Your task to perform on an android device: check google app version Image 0: 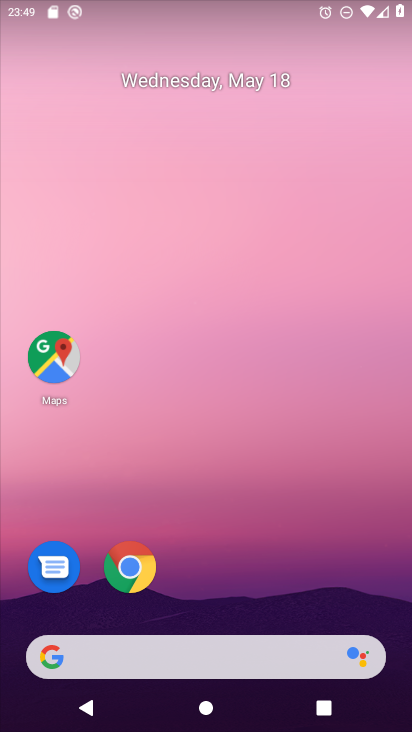
Step 0: drag from (267, 683) to (273, 199)
Your task to perform on an android device: check google app version Image 1: 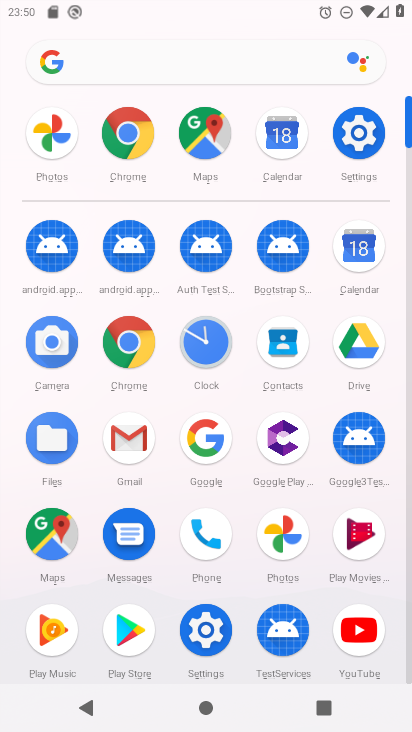
Step 1: click (334, 142)
Your task to perform on an android device: check google app version Image 2: 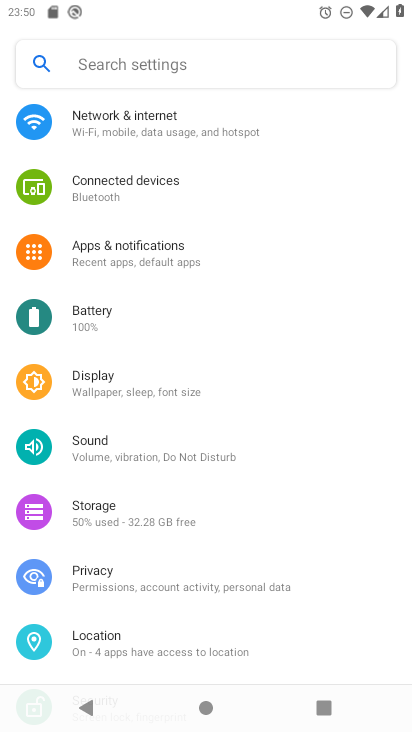
Step 2: press home button
Your task to perform on an android device: check google app version Image 3: 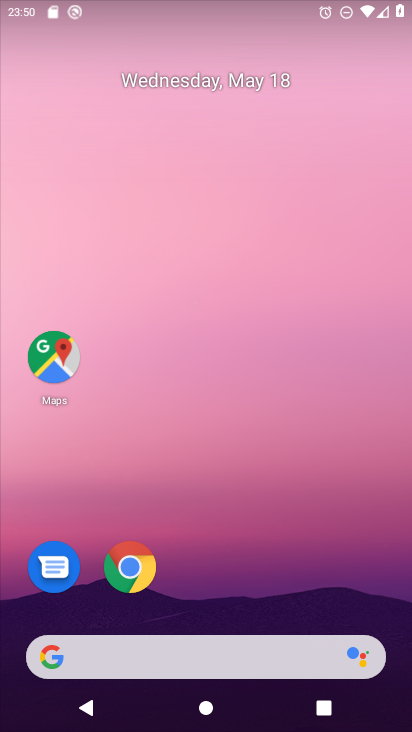
Step 3: drag from (211, 693) to (273, 98)
Your task to perform on an android device: check google app version Image 4: 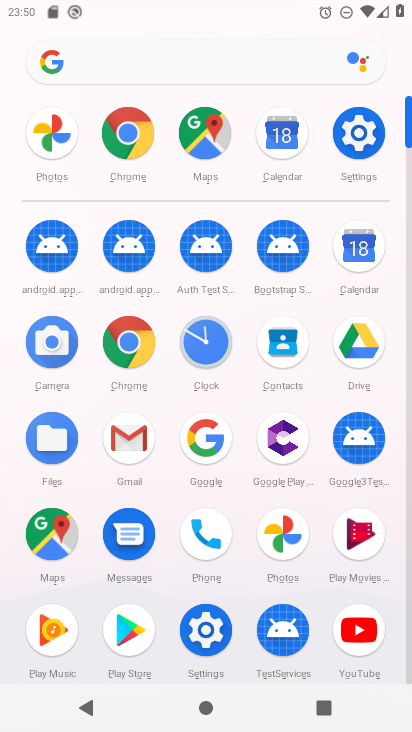
Step 4: click (144, 140)
Your task to perform on an android device: check google app version Image 5: 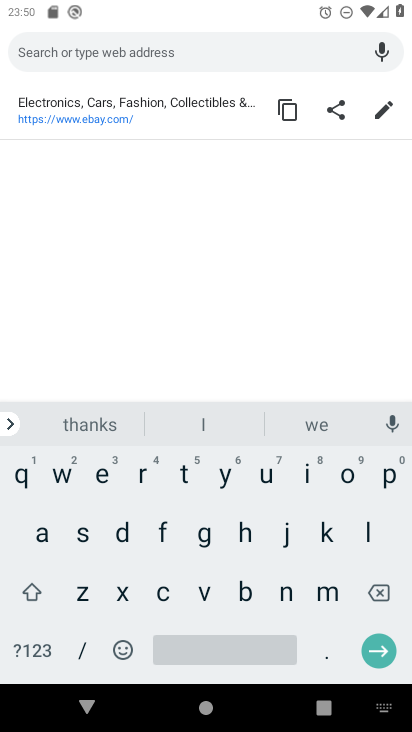
Step 5: press back button
Your task to perform on an android device: check google app version Image 6: 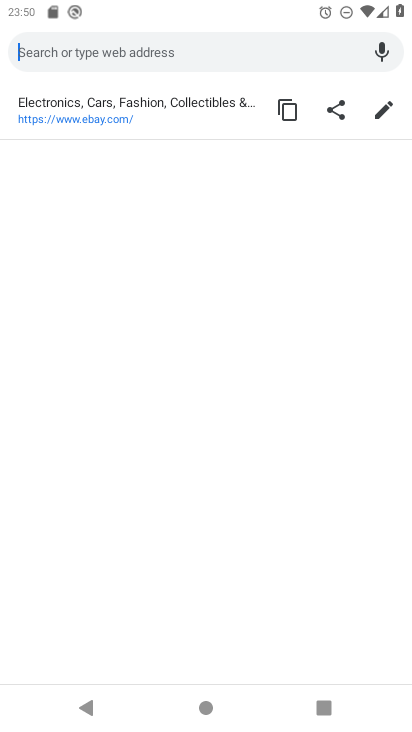
Step 6: press back button
Your task to perform on an android device: check google app version Image 7: 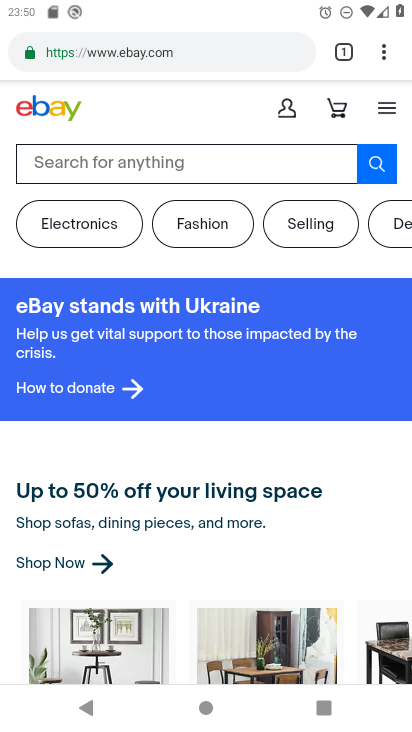
Step 7: click (373, 68)
Your task to perform on an android device: check google app version Image 8: 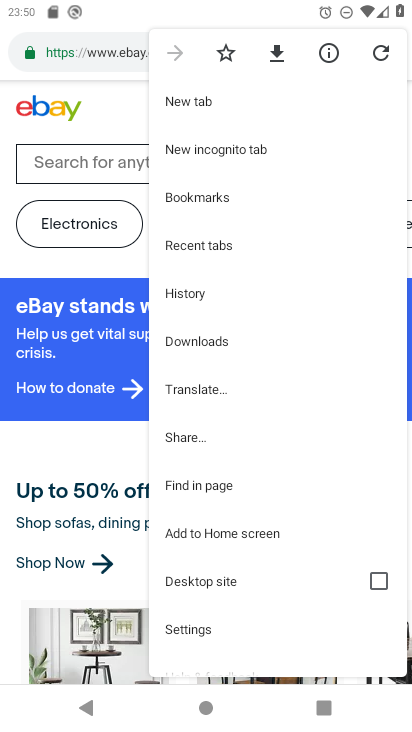
Step 8: click (212, 631)
Your task to perform on an android device: check google app version Image 9: 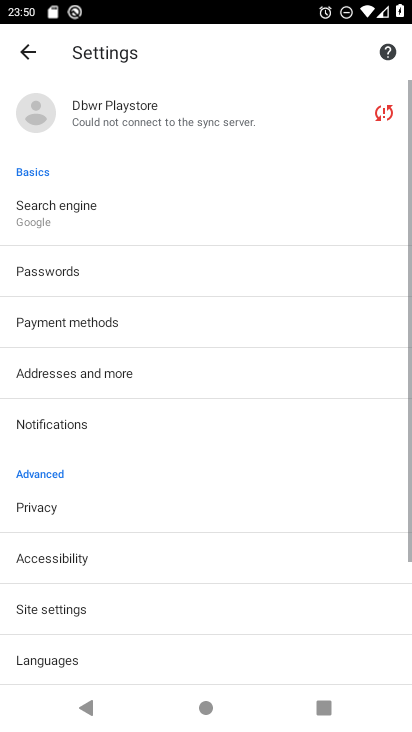
Step 9: drag from (256, 646) to (296, 257)
Your task to perform on an android device: check google app version Image 10: 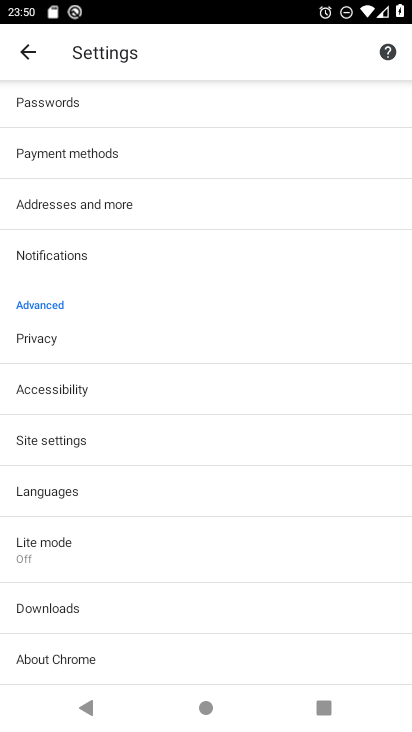
Step 10: click (87, 646)
Your task to perform on an android device: check google app version Image 11: 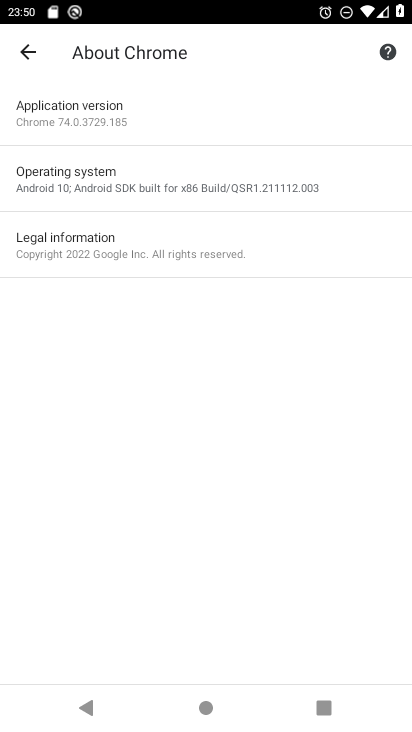
Step 11: click (77, 111)
Your task to perform on an android device: check google app version Image 12: 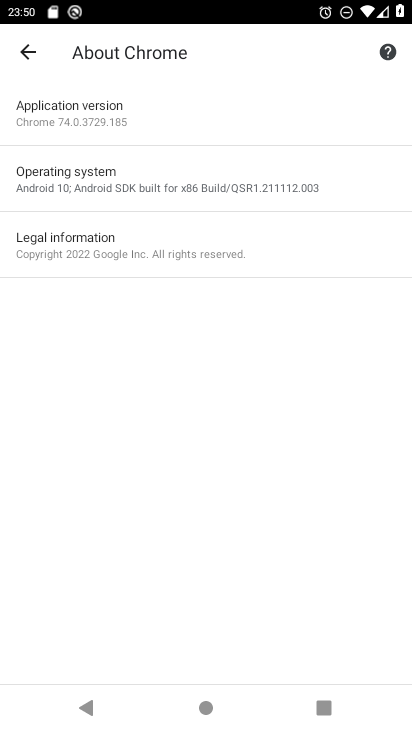
Step 12: task complete